Your task to perform on an android device: See recent photos Image 0: 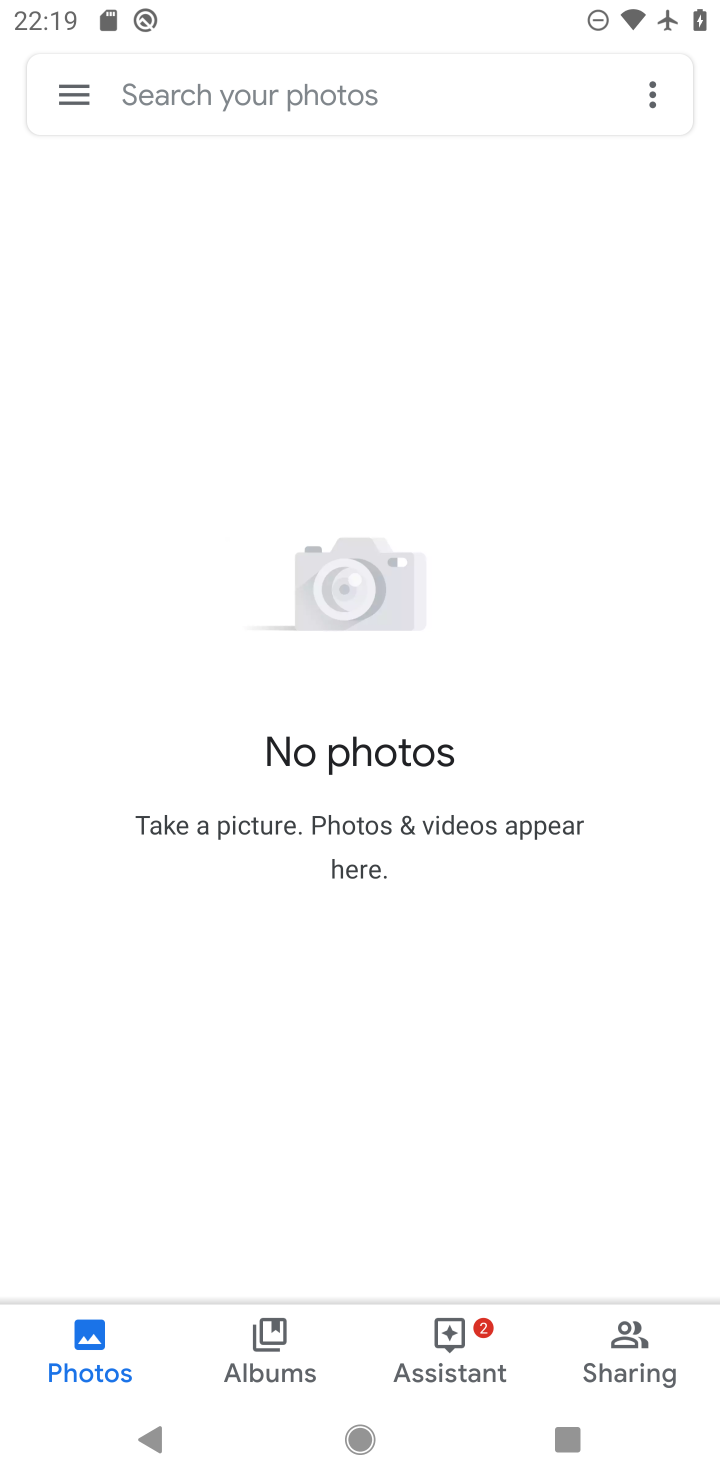
Step 0: task impossible